Your task to perform on an android device: open app "Nova Launcher" Image 0: 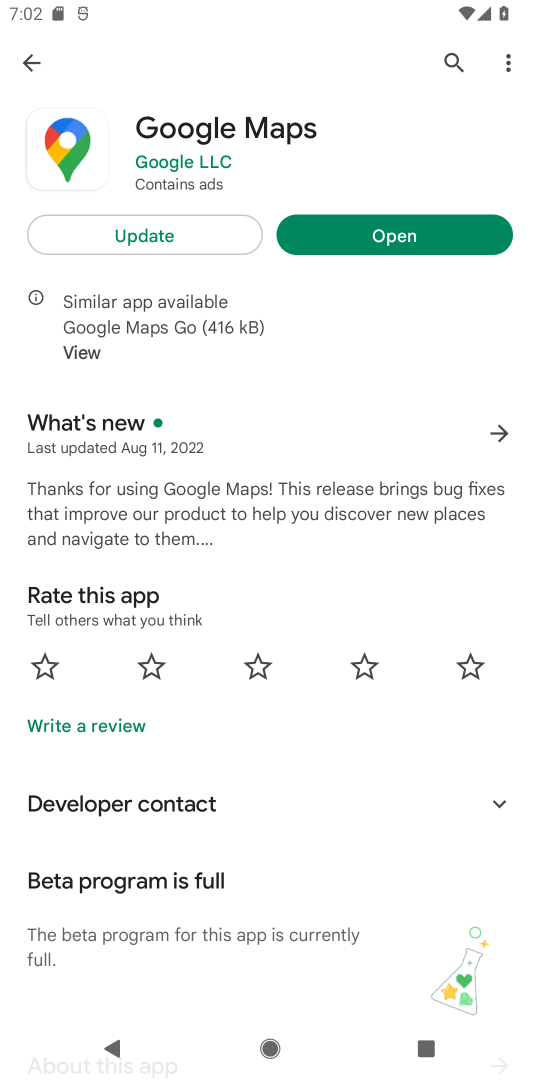
Step 0: press home button
Your task to perform on an android device: open app "Nova Launcher" Image 1: 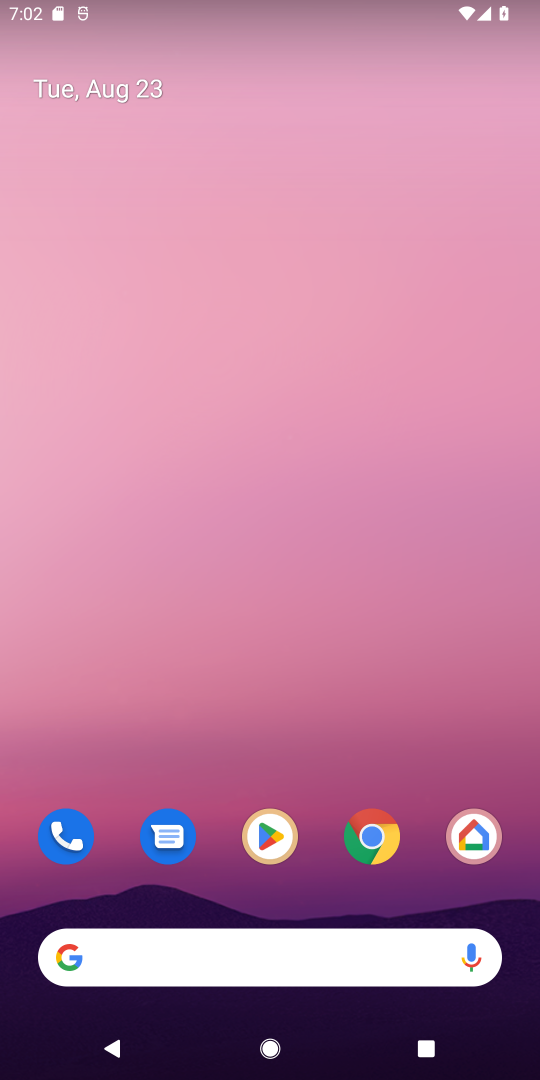
Step 1: click (277, 838)
Your task to perform on an android device: open app "Nova Launcher" Image 2: 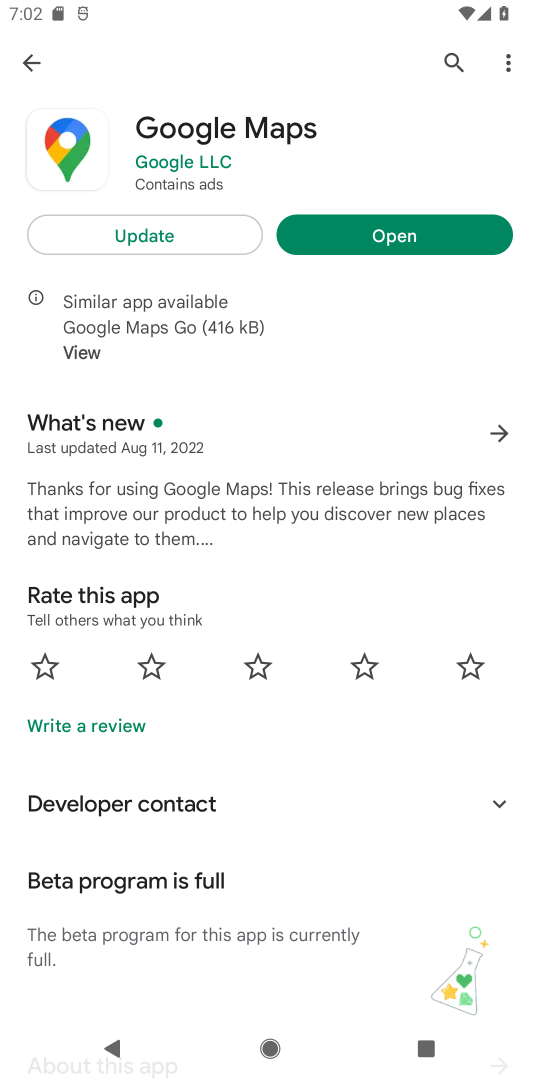
Step 2: click (451, 52)
Your task to perform on an android device: open app "Nova Launcher" Image 3: 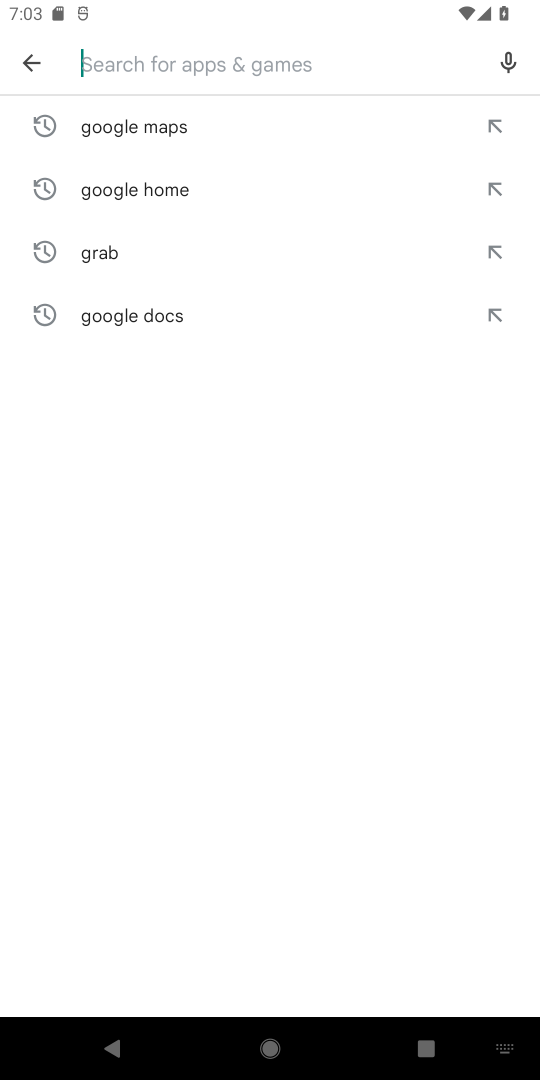
Step 3: type "Nova Launcher"
Your task to perform on an android device: open app "Nova Launcher" Image 4: 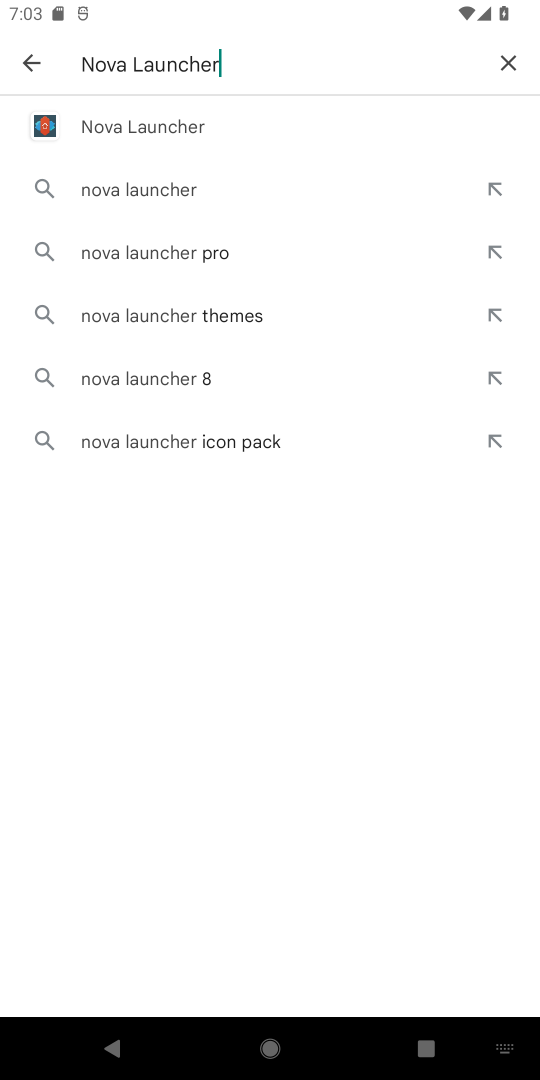
Step 4: click (168, 121)
Your task to perform on an android device: open app "Nova Launcher" Image 5: 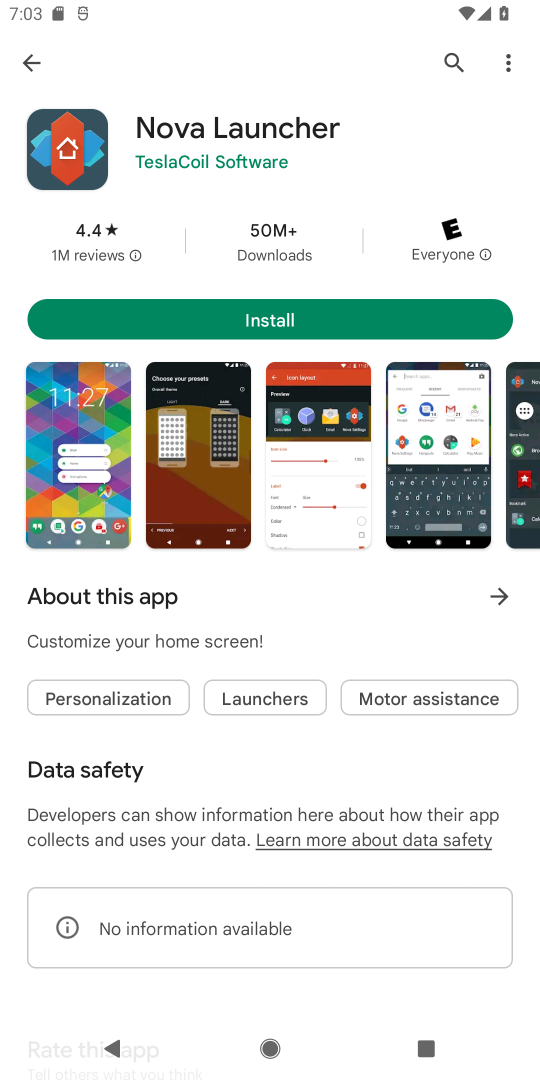
Step 5: task complete